Your task to perform on an android device: open chrome and create a bookmark for the current page Image 0: 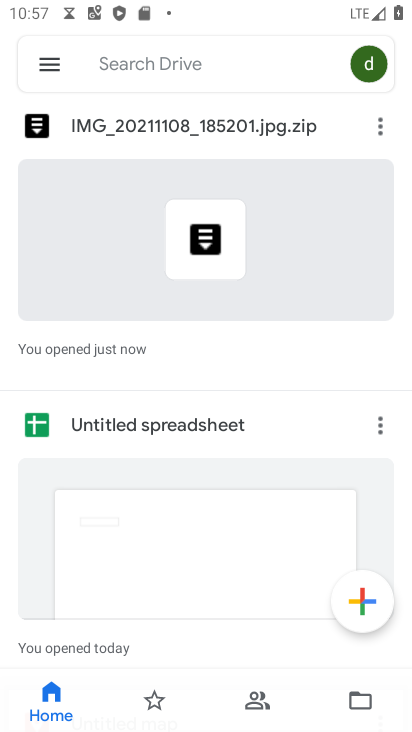
Step 0: press home button
Your task to perform on an android device: open chrome and create a bookmark for the current page Image 1: 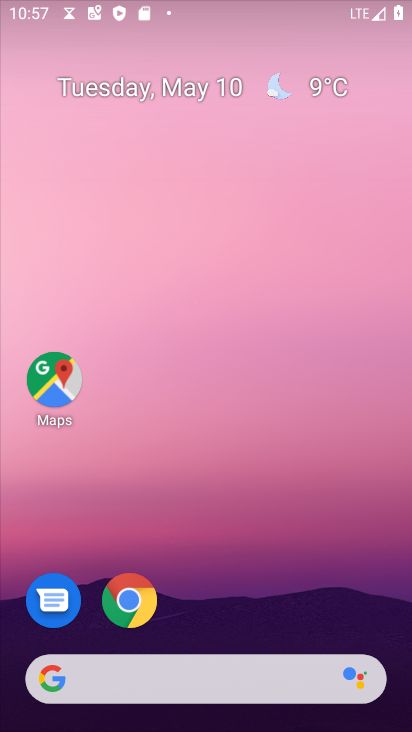
Step 1: drag from (288, 545) to (149, 99)
Your task to perform on an android device: open chrome and create a bookmark for the current page Image 2: 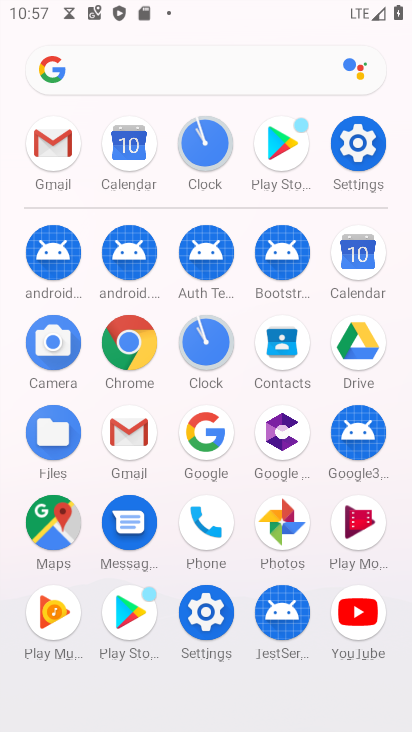
Step 2: click (120, 337)
Your task to perform on an android device: open chrome and create a bookmark for the current page Image 3: 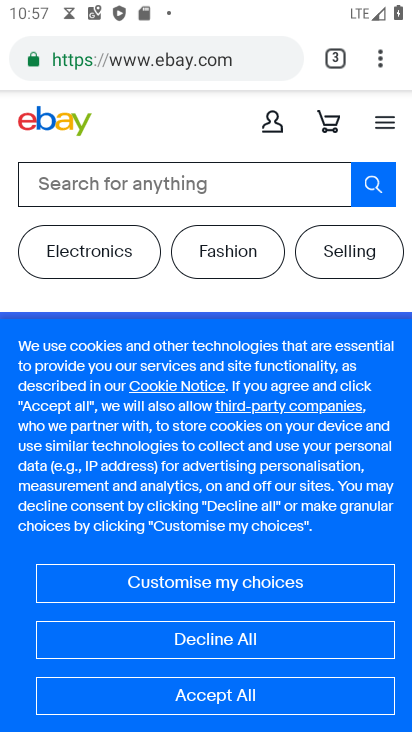
Step 3: click (377, 54)
Your task to perform on an android device: open chrome and create a bookmark for the current page Image 4: 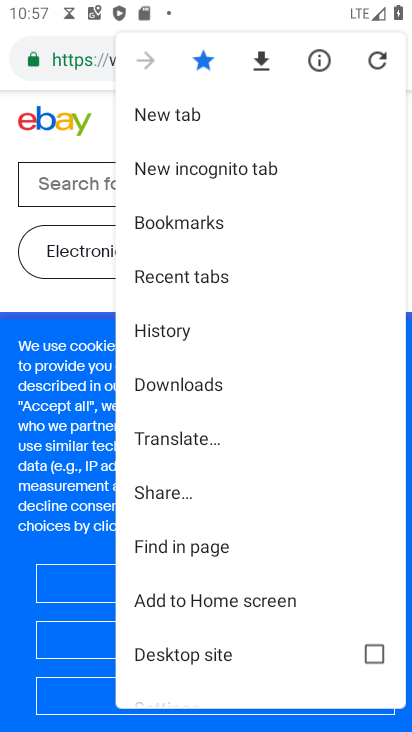
Step 4: click (179, 125)
Your task to perform on an android device: open chrome and create a bookmark for the current page Image 5: 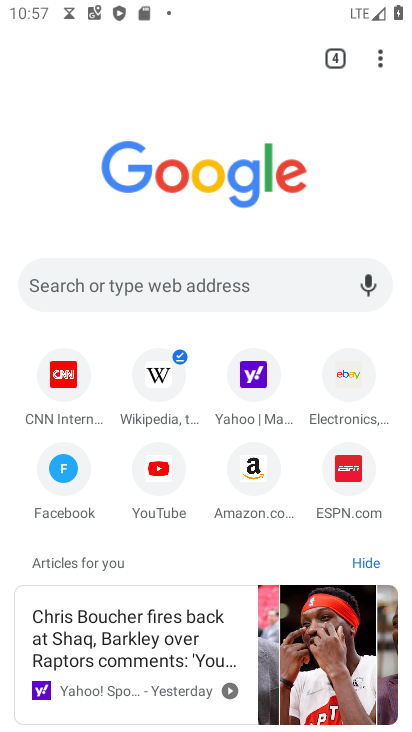
Step 5: click (226, 274)
Your task to perform on an android device: open chrome and create a bookmark for the current page Image 6: 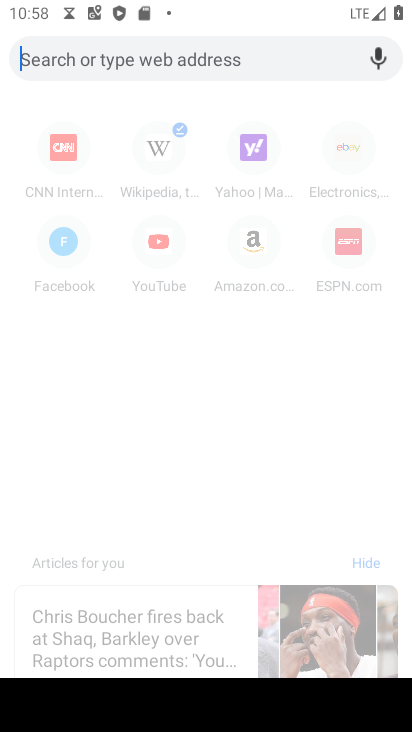
Step 6: click (228, 270)
Your task to perform on an android device: open chrome and create a bookmark for the current page Image 7: 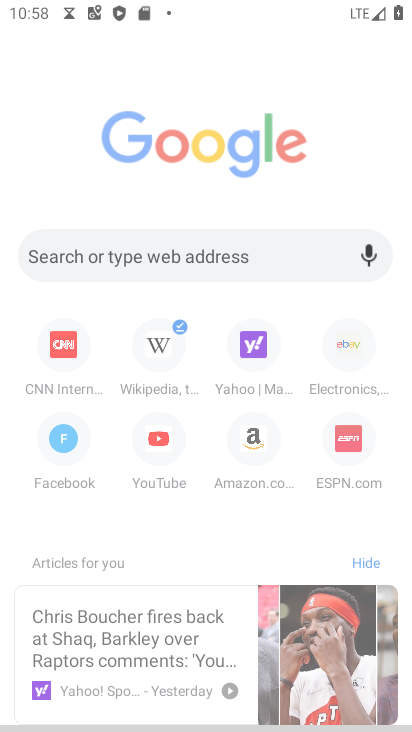
Step 7: click (228, 270)
Your task to perform on an android device: open chrome and create a bookmark for the current page Image 8: 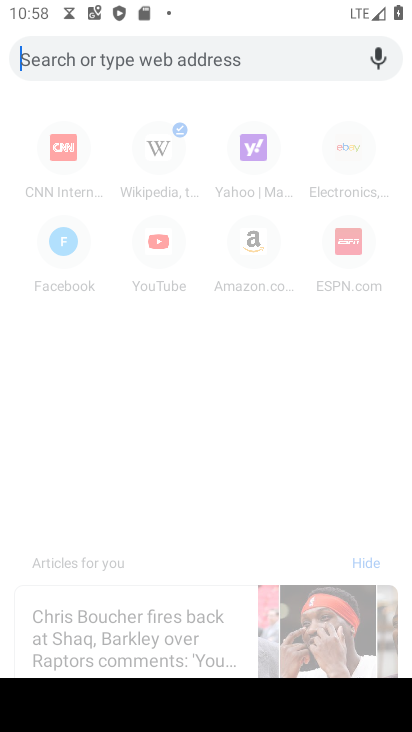
Step 8: type "share"
Your task to perform on an android device: open chrome and create a bookmark for the current page Image 9: 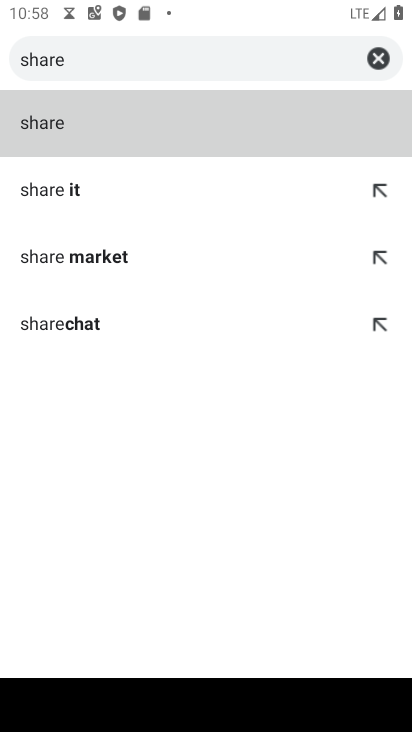
Step 9: click (87, 182)
Your task to perform on an android device: open chrome and create a bookmark for the current page Image 10: 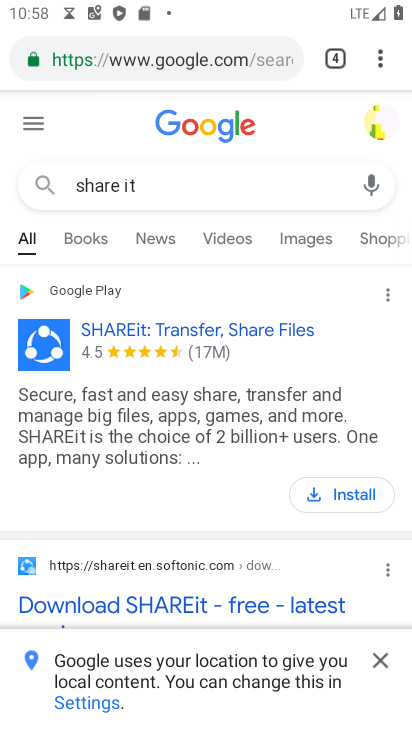
Step 10: click (380, 56)
Your task to perform on an android device: open chrome and create a bookmark for the current page Image 11: 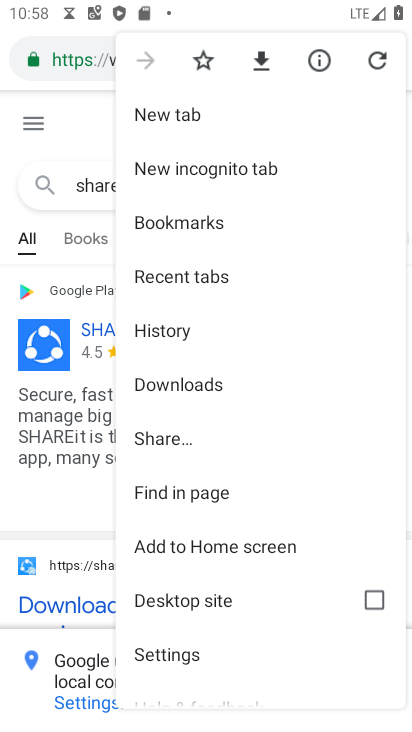
Step 11: click (204, 55)
Your task to perform on an android device: open chrome and create a bookmark for the current page Image 12: 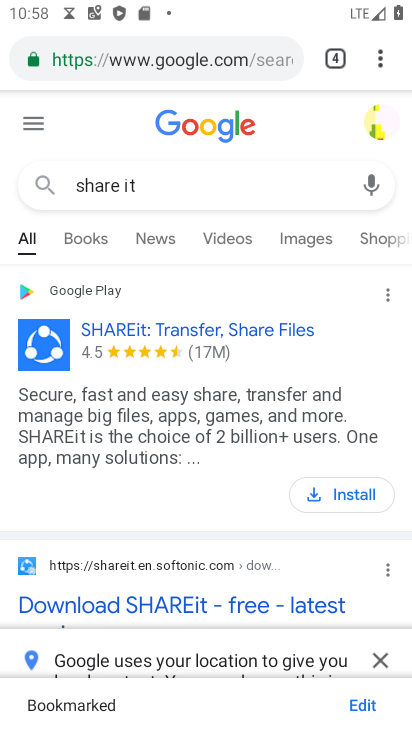
Step 12: task complete